Your task to perform on an android device: Open battery settings Image 0: 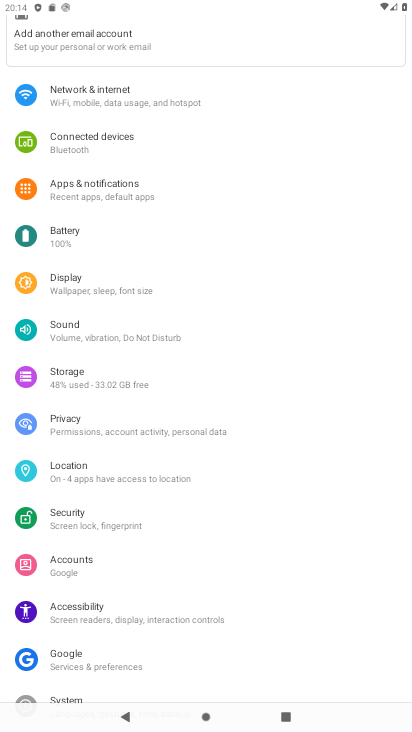
Step 0: click (72, 240)
Your task to perform on an android device: Open battery settings Image 1: 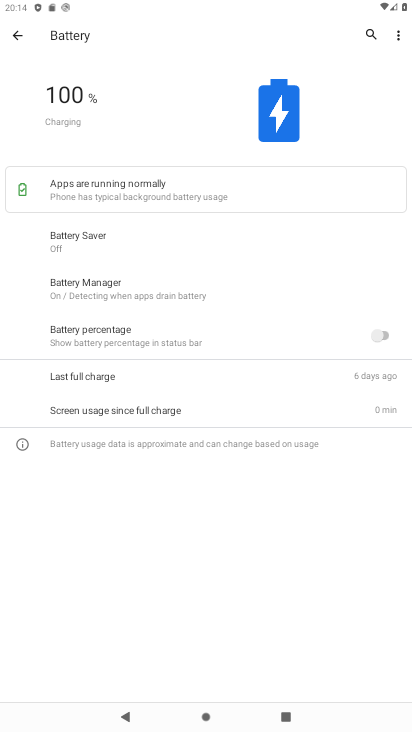
Step 1: task complete